Your task to perform on an android device: Show me recent news Image 0: 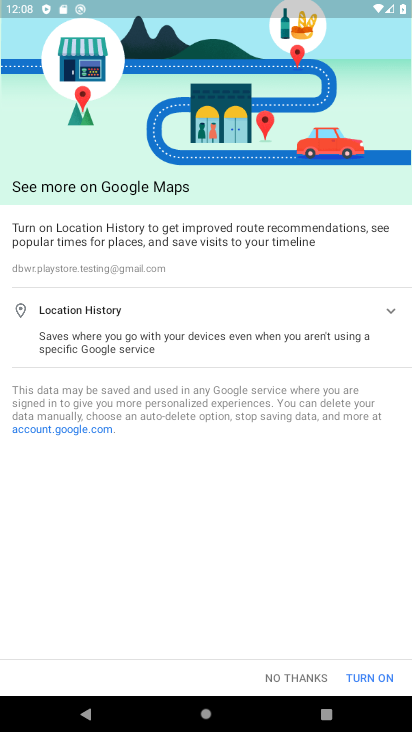
Step 0: press home button
Your task to perform on an android device: Show me recent news Image 1: 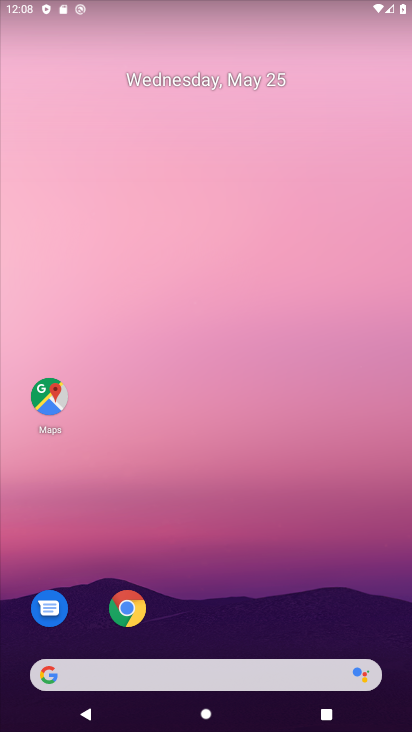
Step 1: click (240, 668)
Your task to perform on an android device: Show me recent news Image 2: 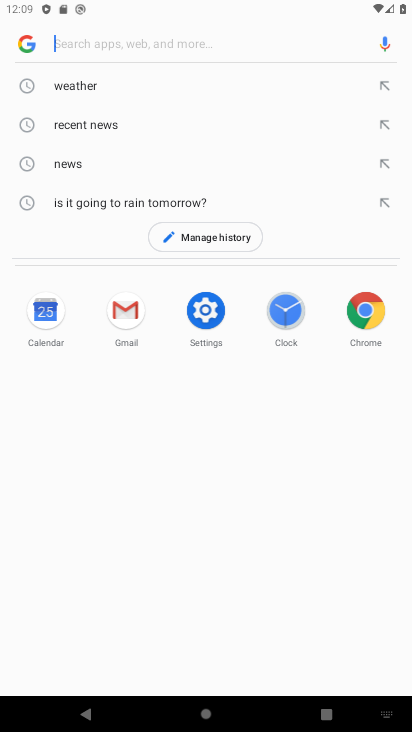
Step 2: click (128, 131)
Your task to perform on an android device: Show me recent news Image 3: 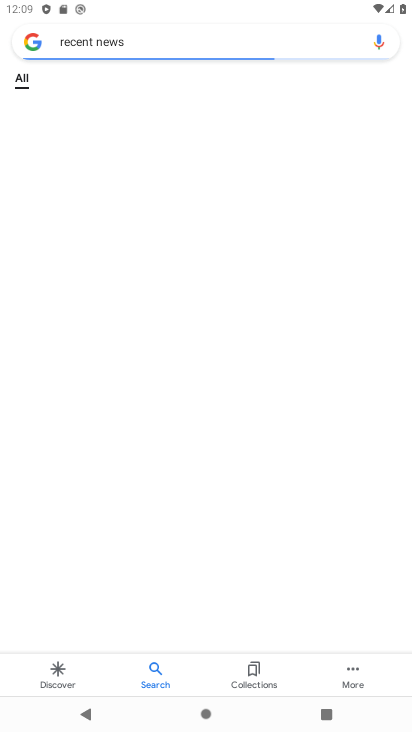
Step 3: task complete